Your task to perform on an android device: turn on improve location accuracy Image 0: 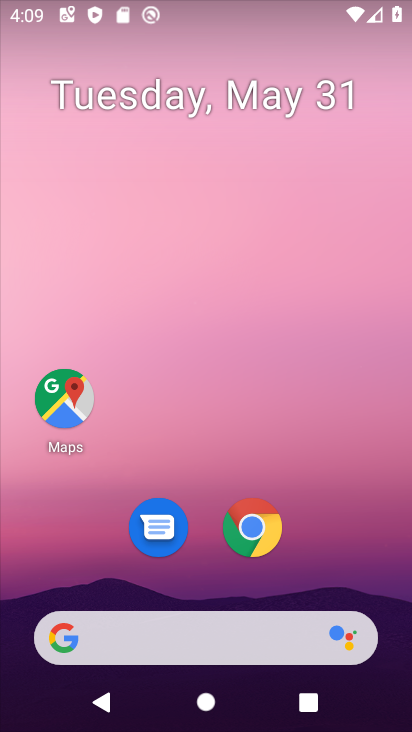
Step 0: drag from (323, 569) to (250, 27)
Your task to perform on an android device: turn on improve location accuracy Image 1: 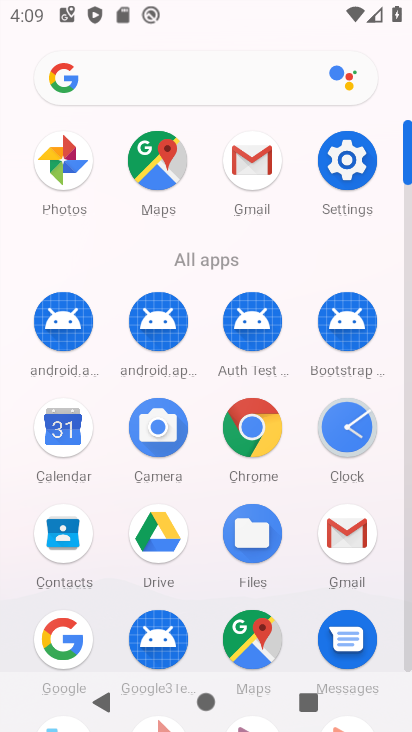
Step 1: drag from (11, 567) to (19, 232)
Your task to perform on an android device: turn on improve location accuracy Image 2: 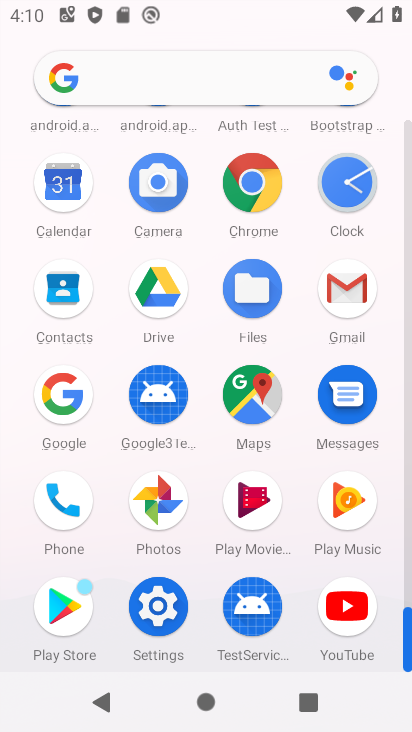
Step 2: drag from (20, 543) to (22, 247)
Your task to perform on an android device: turn on improve location accuracy Image 3: 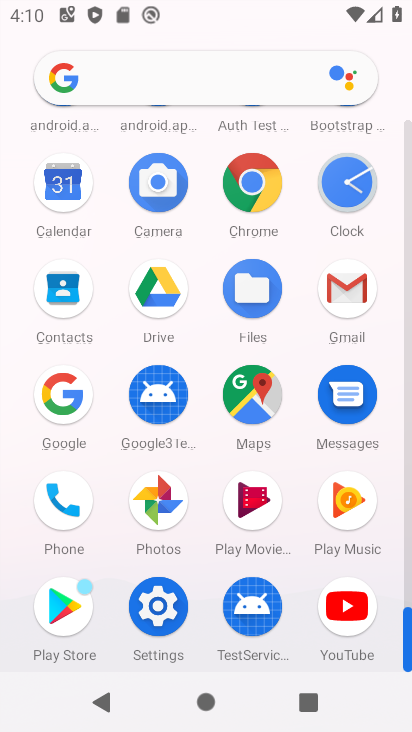
Step 3: click (249, 396)
Your task to perform on an android device: turn on improve location accuracy Image 4: 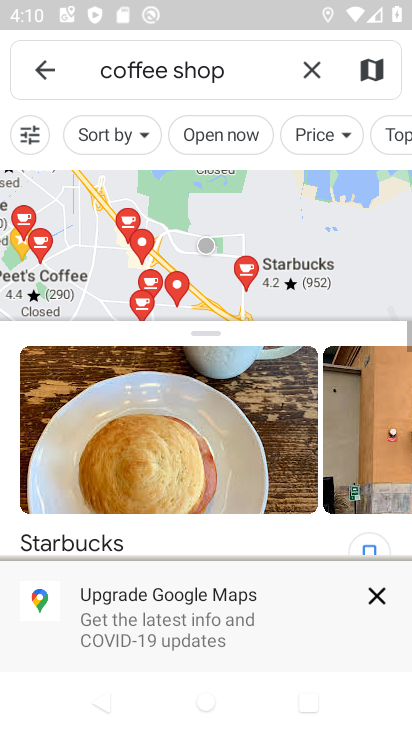
Step 4: click (53, 58)
Your task to perform on an android device: turn on improve location accuracy Image 5: 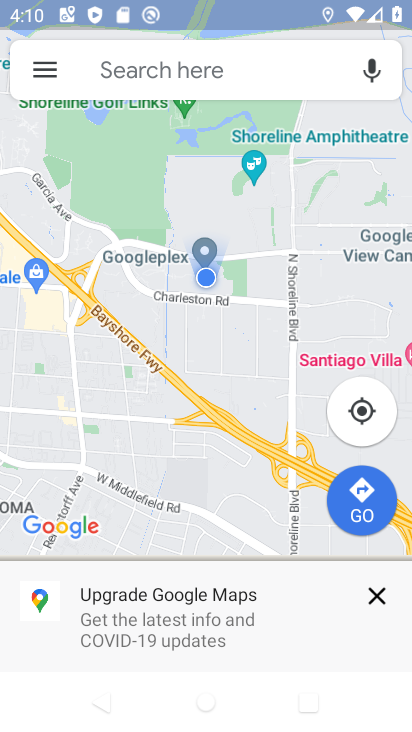
Step 5: click (46, 62)
Your task to perform on an android device: turn on improve location accuracy Image 6: 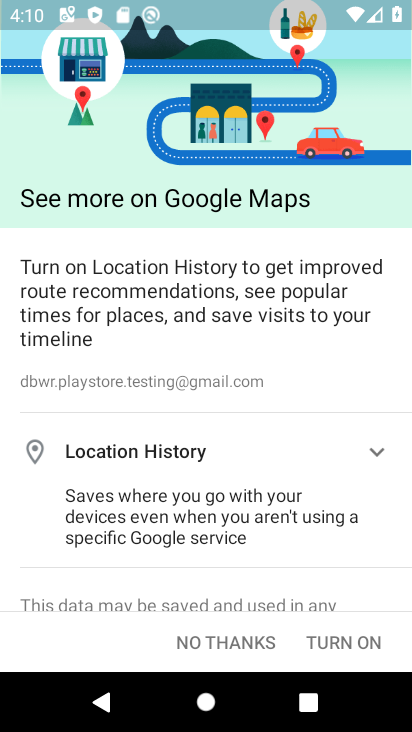
Step 6: click (342, 634)
Your task to perform on an android device: turn on improve location accuracy Image 7: 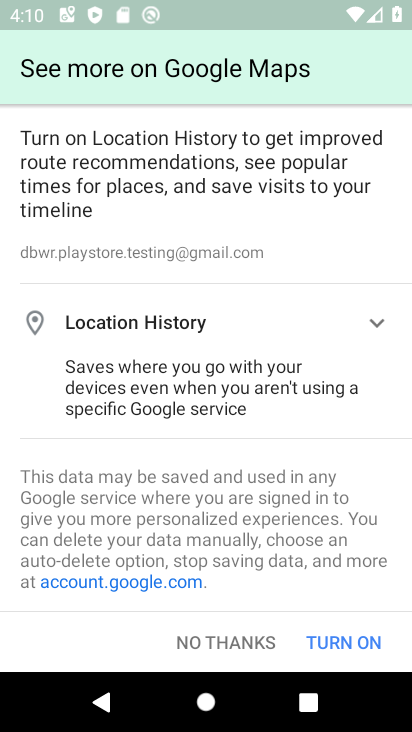
Step 7: click (342, 634)
Your task to perform on an android device: turn on improve location accuracy Image 8: 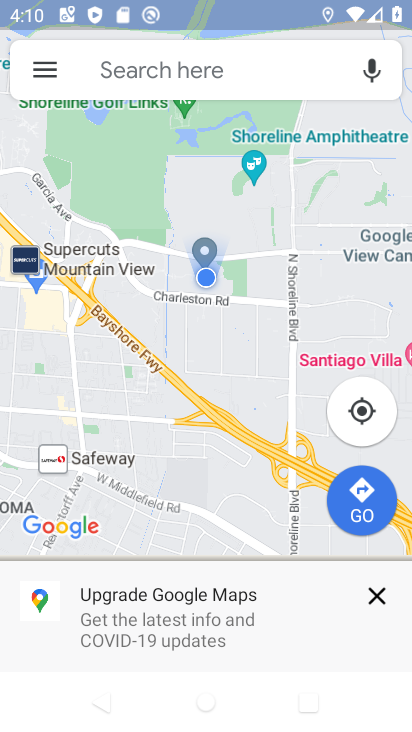
Step 8: click (40, 69)
Your task to perform on an android device: turn on improve location accuracy Image 9: 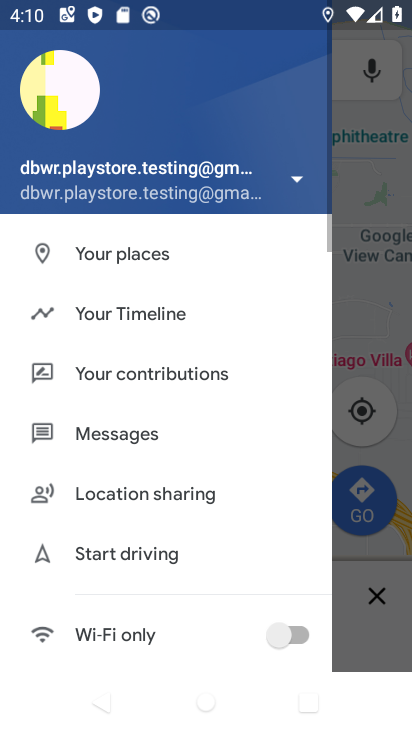
Step 9: drag from (164, 562) to (210, 193)
Your task to perform on an android device: turn on improve location accuracy Image 10: 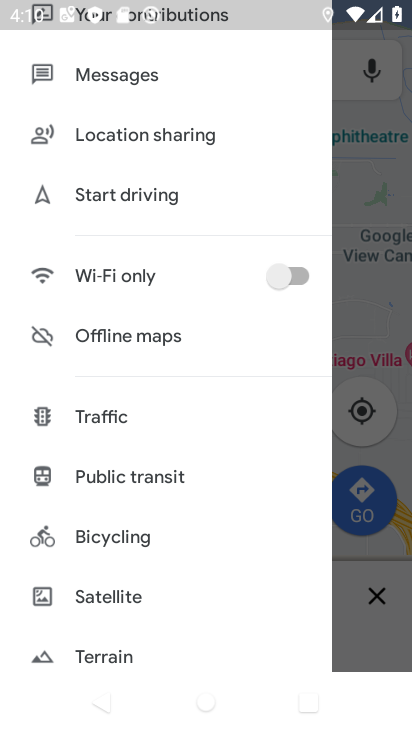
Step 10: drag from (191, 605) to (191, 266)
Your task to perform on an android device: turn on improve location accuracy Image 11: 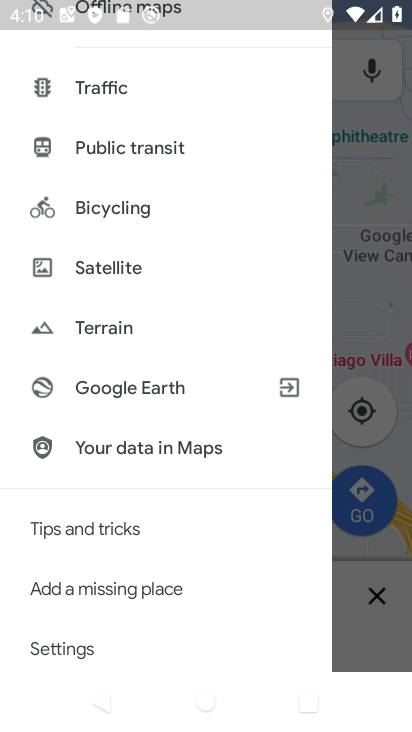
Step 11: click (72, 650)
Your task to perform on an android device: turn on improve location accuracy Image 12: 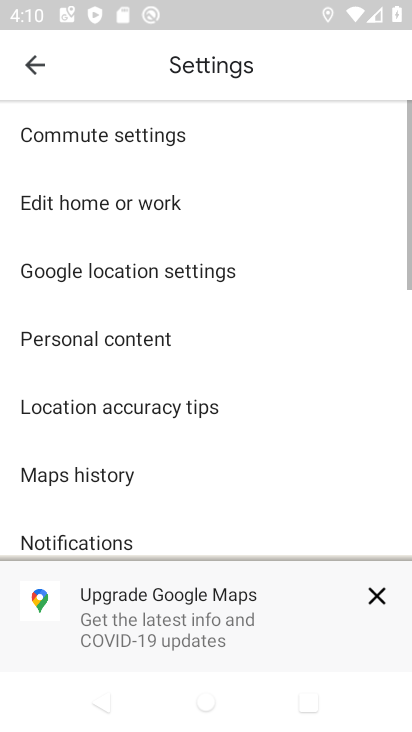
Step 12: click (155, 265)
Your task to perform on an android device: turn on improve location accuracy Image 13: 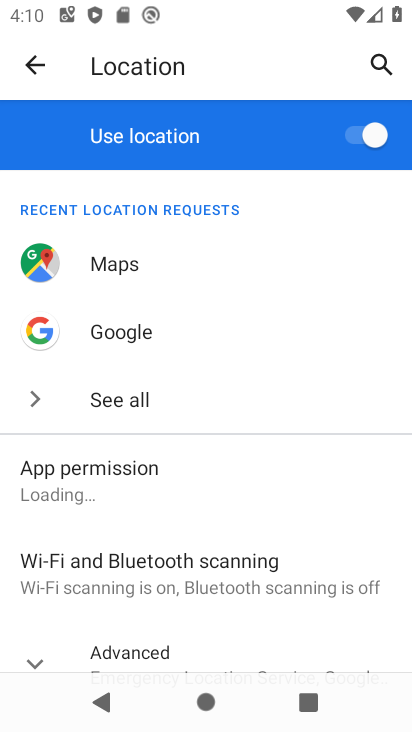
Step 13: drag from (268, 620) to (272, 258)
Your task to perform on an android device: turn on improve location accuracy Image 14: 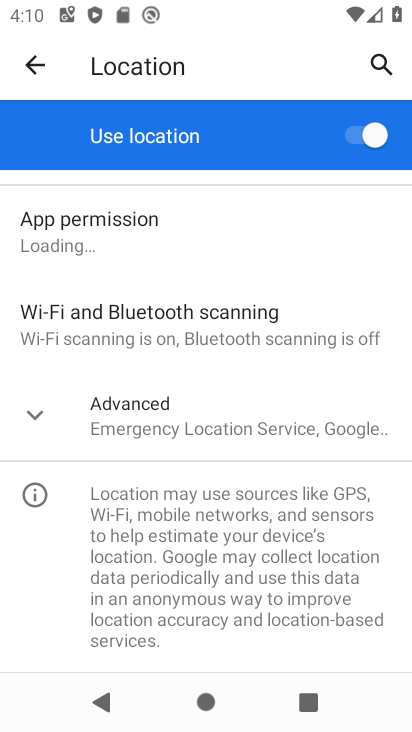
Step 14: click (181, 431)
Your task to perform on an android device: turn on improve location accuracy Image 15: 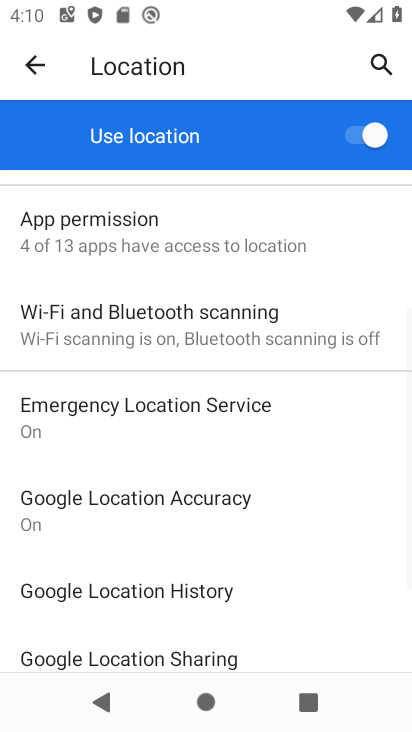
Step 15: click (224, 498)
Your task to perform on an android device: turn on improve location accuracy Image 16: 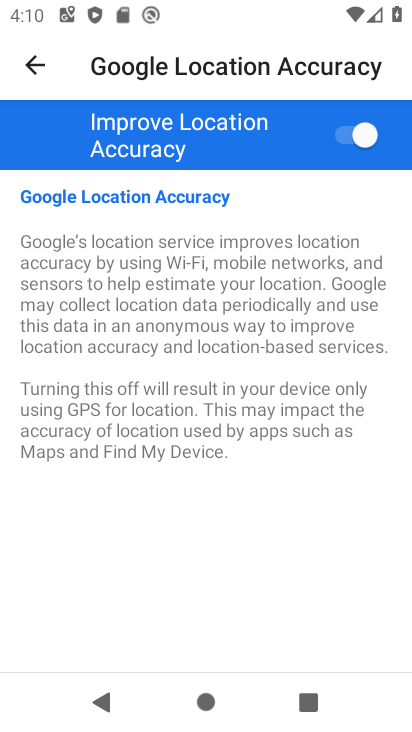
Step 16: task complete